Your task to perform on an android device: turn off translation in the chrome app Image 0: 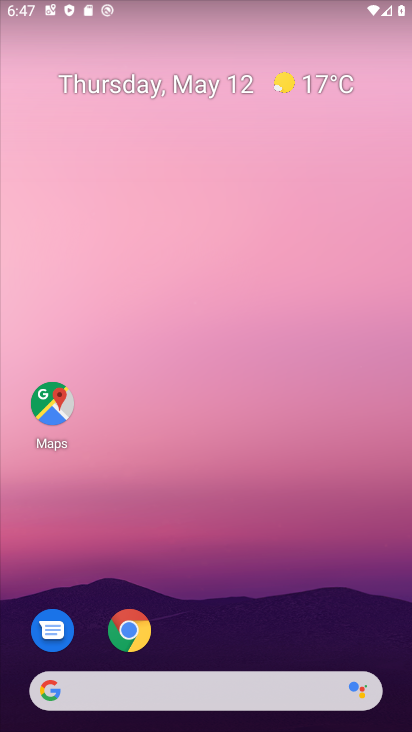
Step 0: drag from (288, 547) to (177, 0)
Your task to perform on an android device: turn off translation in the chrome app Image 1: 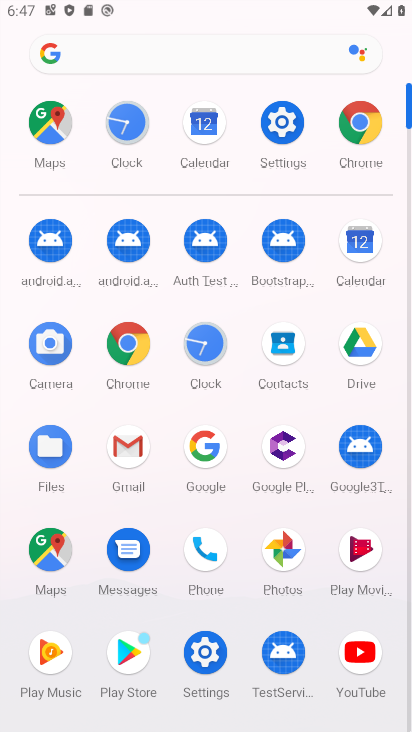
Step 1: click (137, 348)
Your task to perform on an android device: turn off translation in the chrome app Image 2: 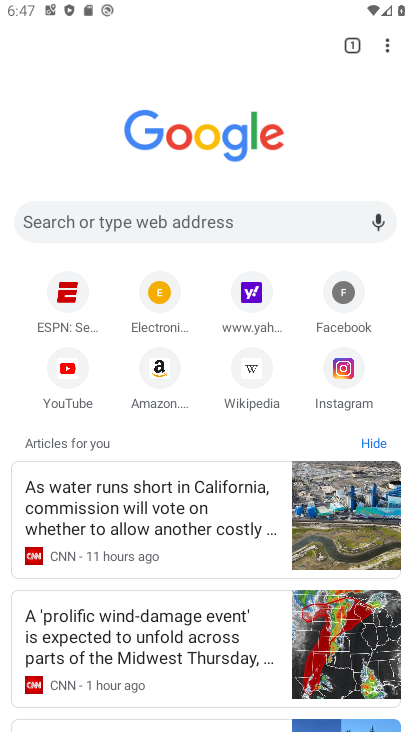
Step 2: click (393, 40)
Your task to perform on an android device: turn off translation in the chrome app Image 3: 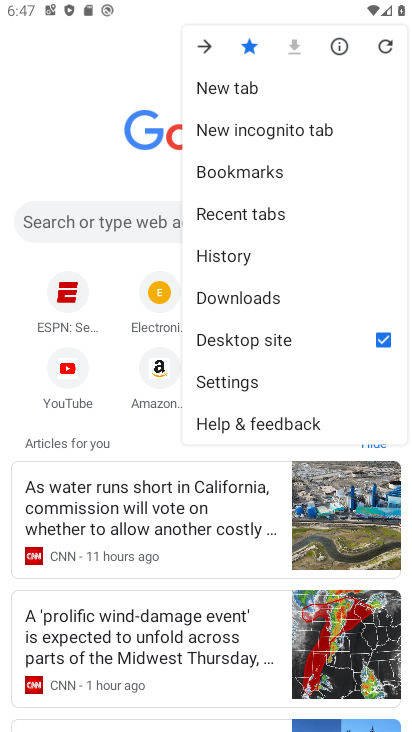
Step 3: click (269, 382)
Your task to perform on an android device: turn off translation in the chrome app Image 4: 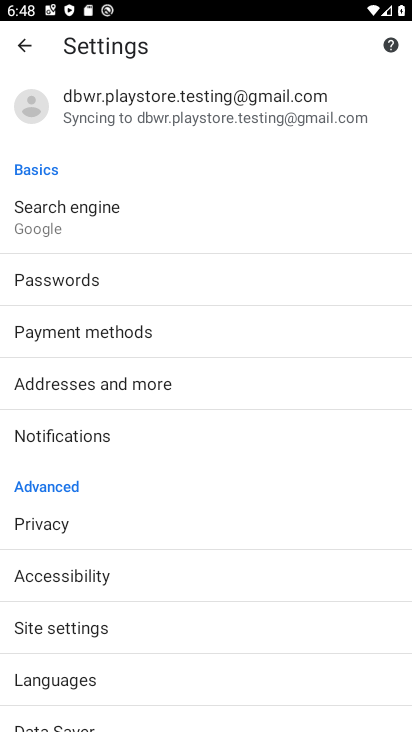
Step 4: click (170, 666)
Your task to perform on an android device: turn off translation in the chrome app Image 5: 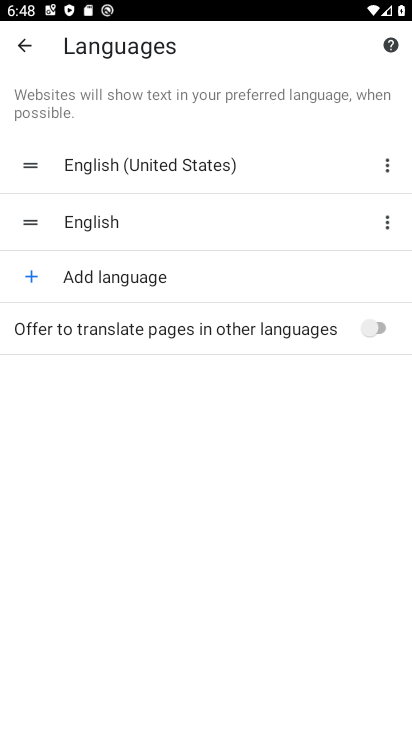
Step 5: task complete